Your task to perform on an android device: open chrome privacy settings Image 0: 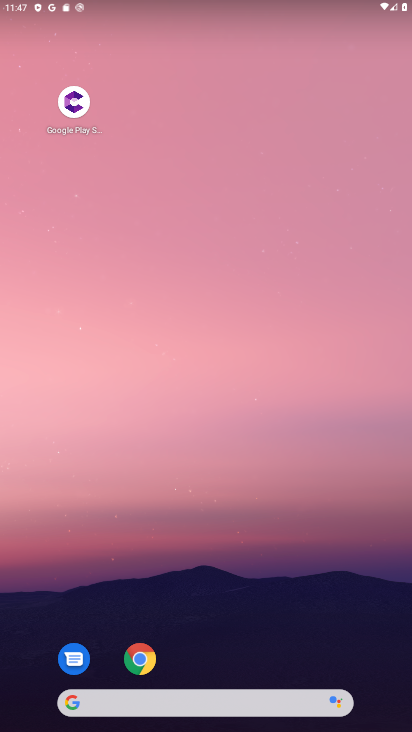
Step 0: drag from (210, 674) to (230, 135)
Your task to perform on an android device: open chrome privacy settings Image 1: 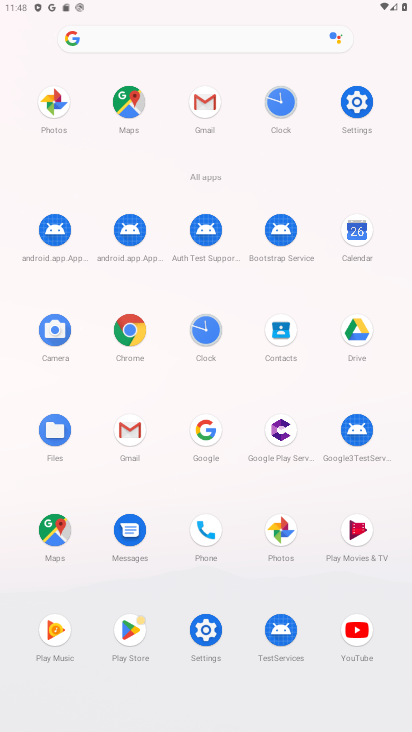
Step 1: click (124, 324)
Your task to perform on an android device: open chrome privacy settings Image 2: 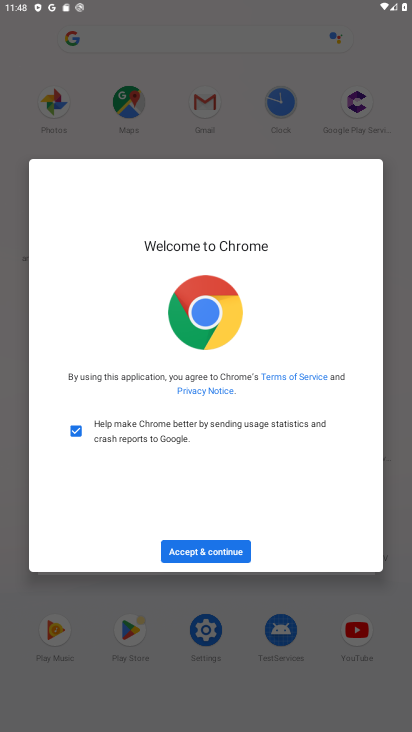
Step 2: click (201, 551)
Your task to perform on an android device: open chrome privacy settings Image 3: 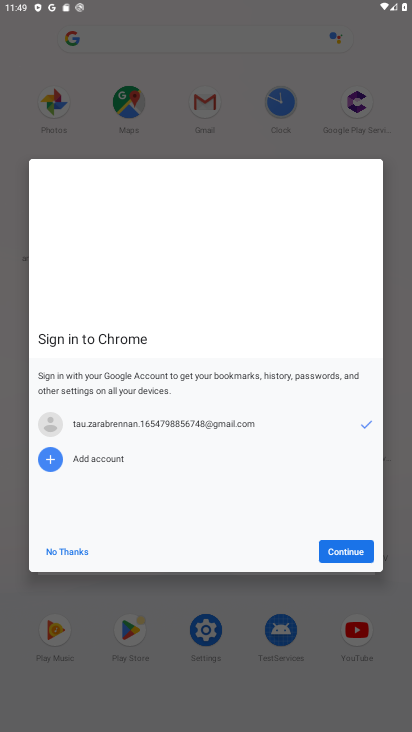
Step 3: click (342, 548)
Your task to perform on an android device: open chrome privacy settings Image 4: 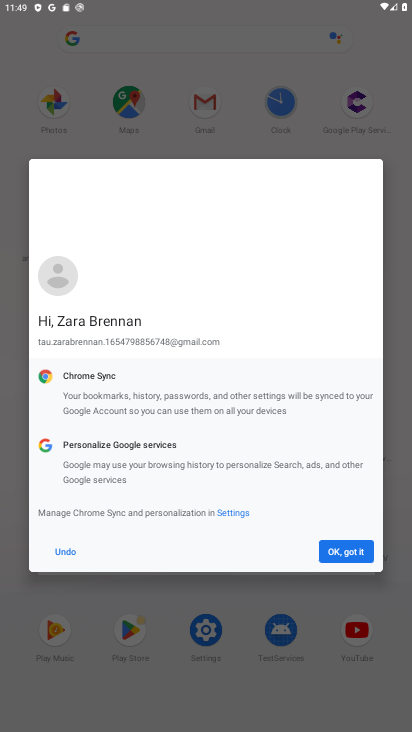
Step 4: click (336, 553)
Your task to perform on an android device: open chrome privacy settings Image 5: 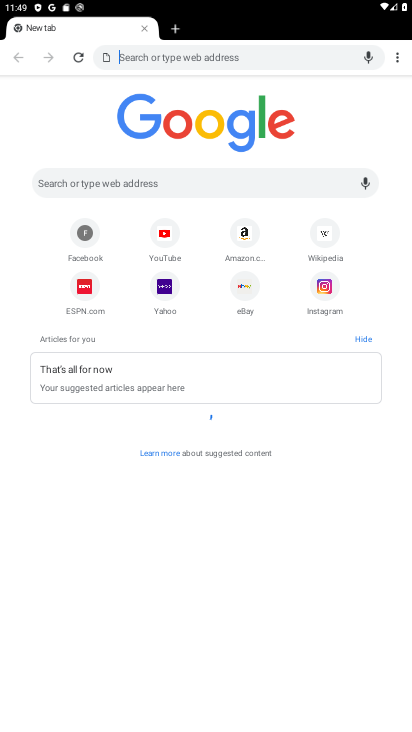
Step 5: click (396, 57)
Your task to perform on an android device: open chrome privacy settings Image 6: 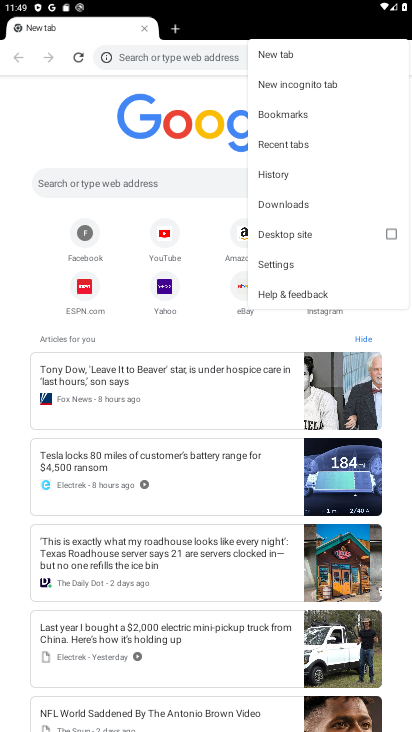
Step 6: click (302, 262)
Your task to perform on an android device: open chrome privacy settings Image 7: 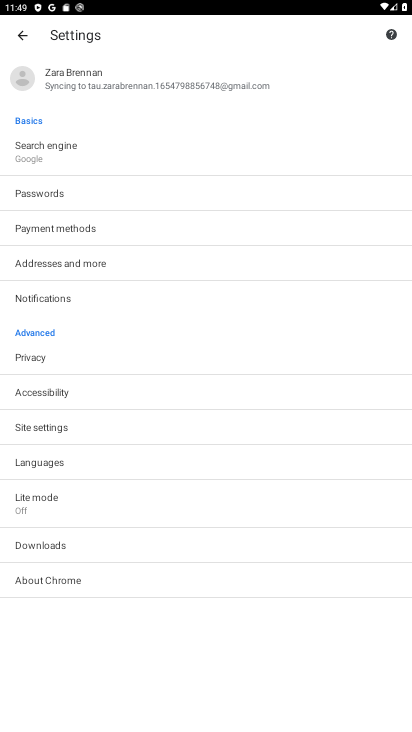
Step 7: click (55, 355)
Your task to perform on an android device: open chrome privacy settings Image 8: 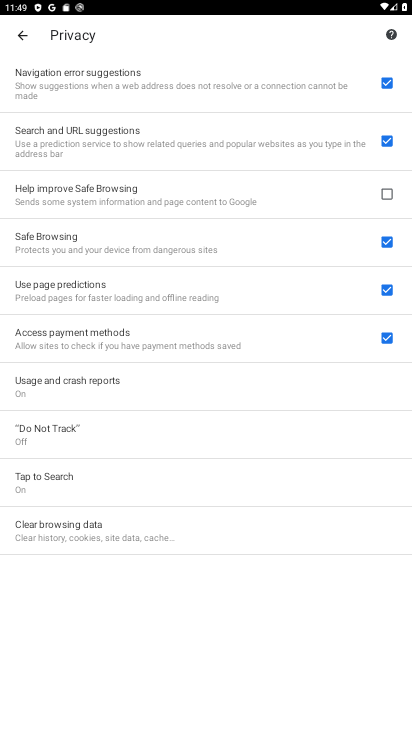
Step 8: task complete